Your task to perform on an android device: turn on sleep mode Image 0: 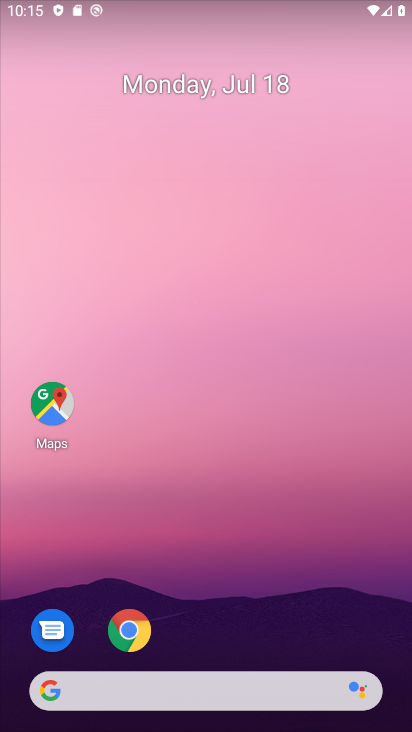
Step 0: drag from (213, 622) to (197, 247)
Your task to perform on an android device: turn on sleep mode Image 1: 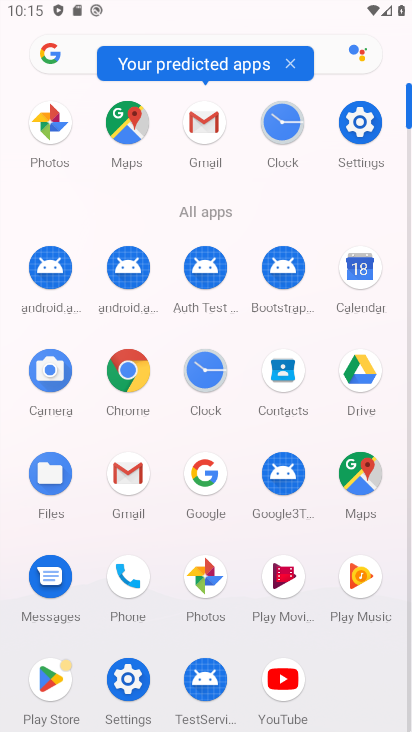
Step 1: click (363, 118)
Your task to perform on an android device: turn on sleep mode Image 2: 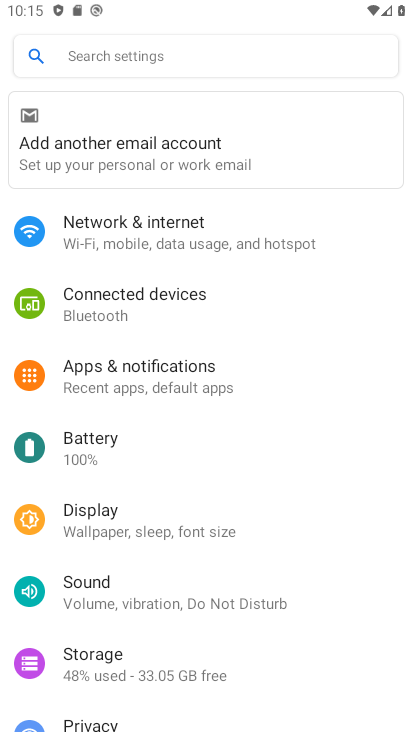
Step 2: click (171, 527)
Your task to perform on an android device: turn on sleep mode Image 3: 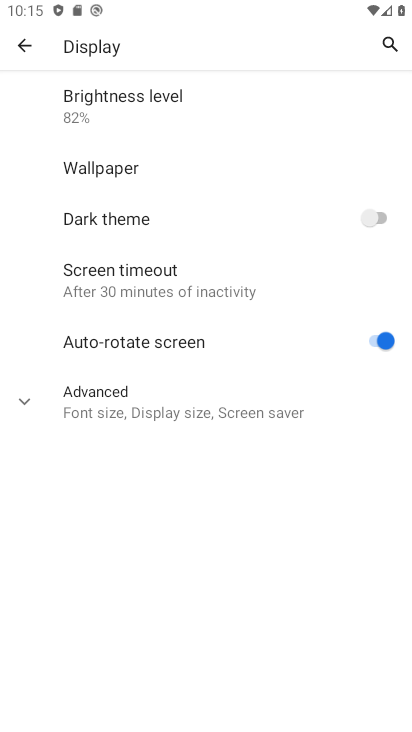
Step 3: click (210, 405)
Your task to perform on an android device: turn on sleep mode Image 4: 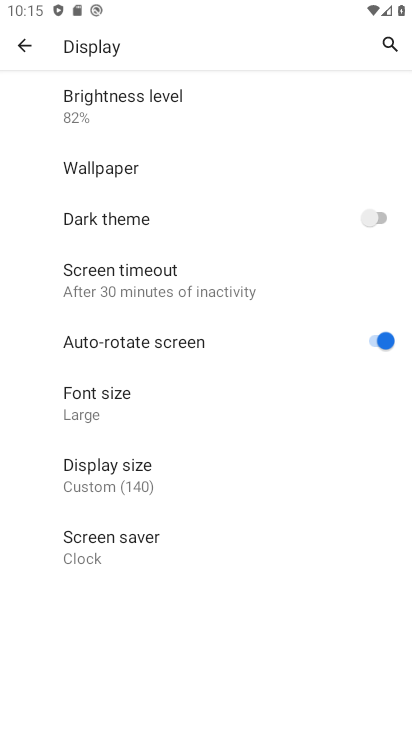
Step 4: task complete